Your task to perform on an android device: Check the news Image 0: 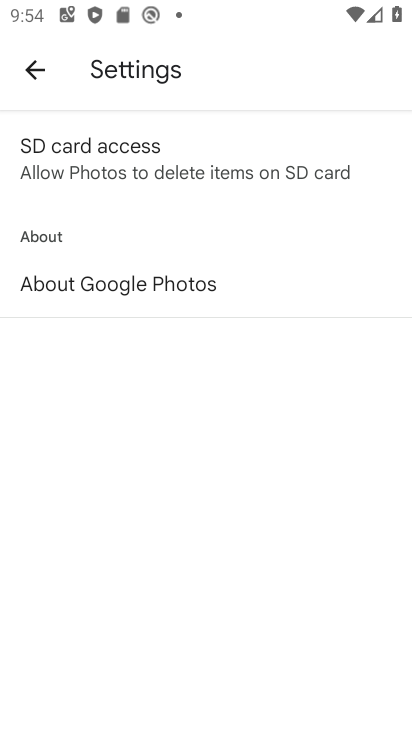
Step 0: press home button
Your task to perform on an android device: Check the news Image 1: 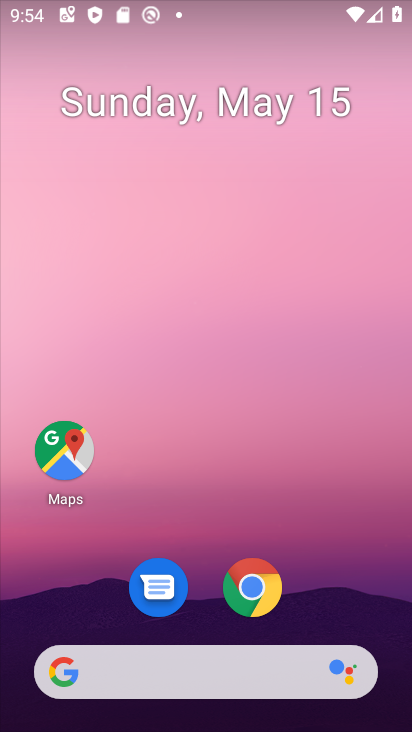
Step 1: drag from (401, 616) to (266, 85)
Your task to perform on an android device: Check the news Image 2: 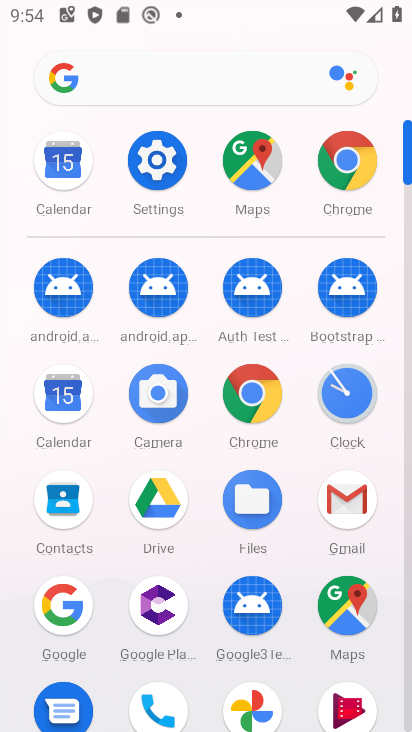
Step 2: click (264, 414)
Your task to perform on an android device: Check the news Image 3: 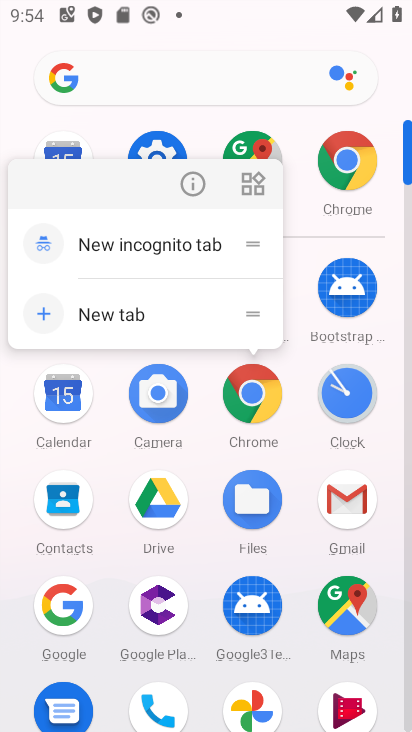
Step 3: click (264, 414)
Your task to perform on an android device: Check the news Image 4: 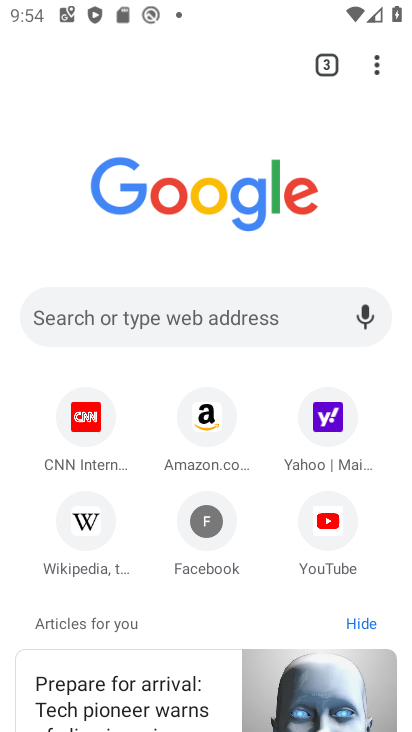
Step 4: drag from (149, 698) to (193, 320)
Your task to perform on an android device: Check the news Image 5: 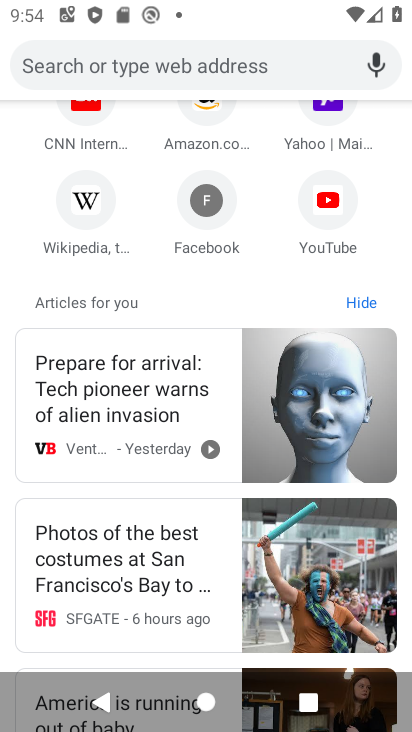
Step 5: click (184, 527)
Your task to perform on an android device: Check the news Image 6: 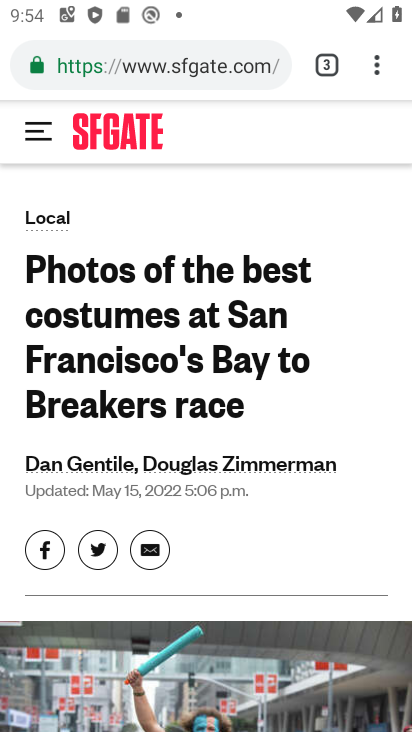
Step 6: task complete